Your task to perform on an android device: Open network settings Image 0: 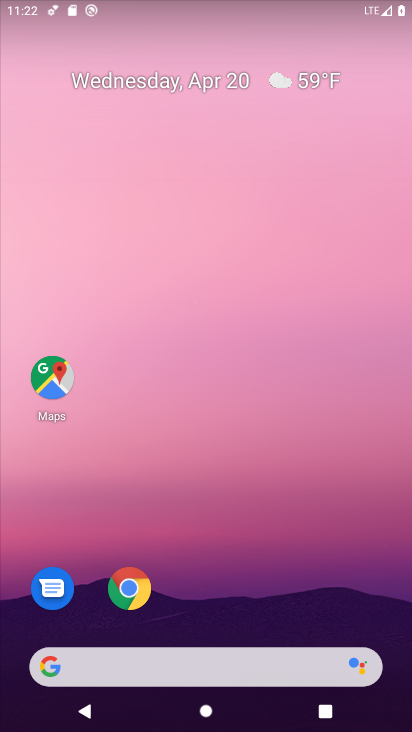
Step 0: drag from (276, 591) to (180, 12)
Your task to perform on an android device: Open network settings Image 1: 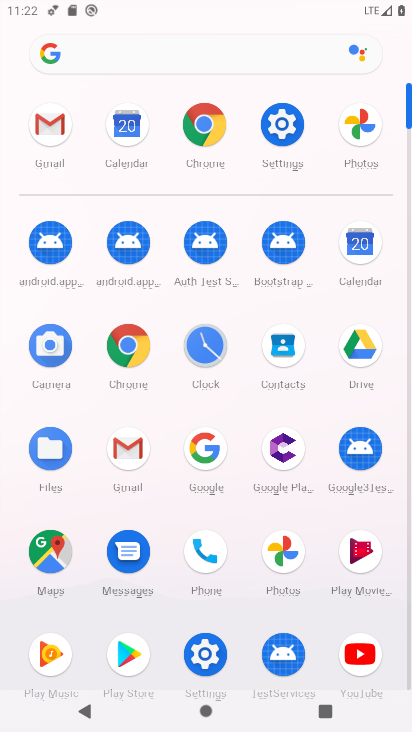
Step 1: click (277, 121)
Your task to perform on an android device: Open network settings Image 2: 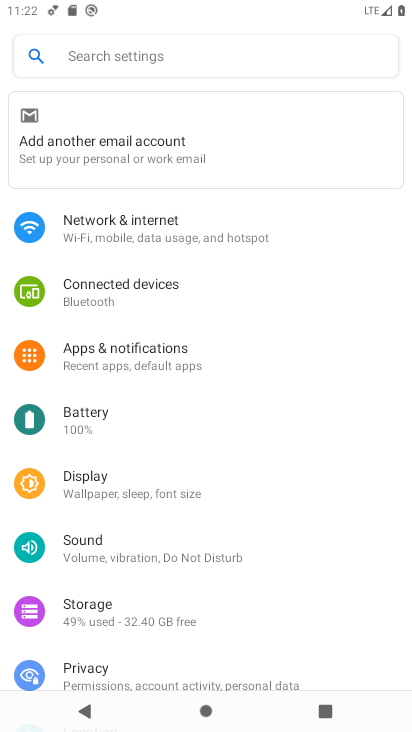
Step 2: click (97, 220)
Your task to perform on an android device: Open network settings Image 3: 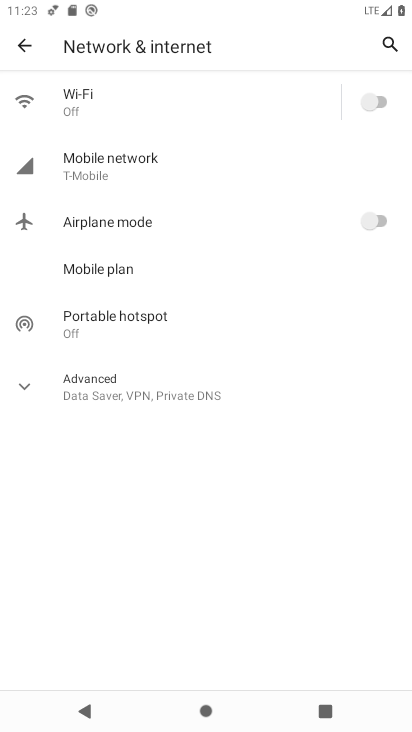
Step 3: task complete